Your task to perform on an android device: toggle priority inbox in the gmail app Image 0: 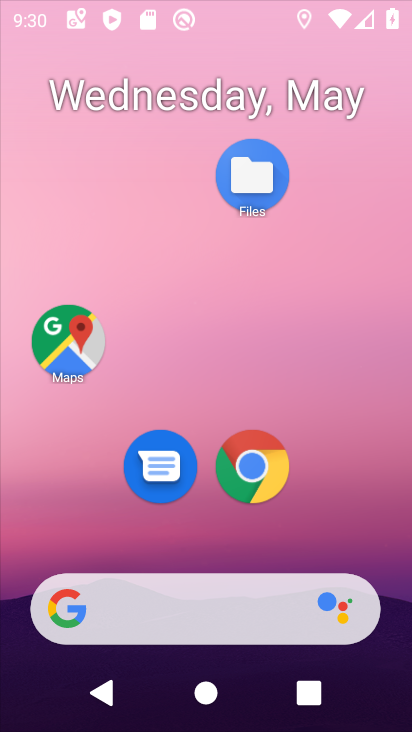
Step 0: drag from (281, 645) to (142, 247)
Your task to perform on an android device: toggle priority inbox in the gmail app Image 1: 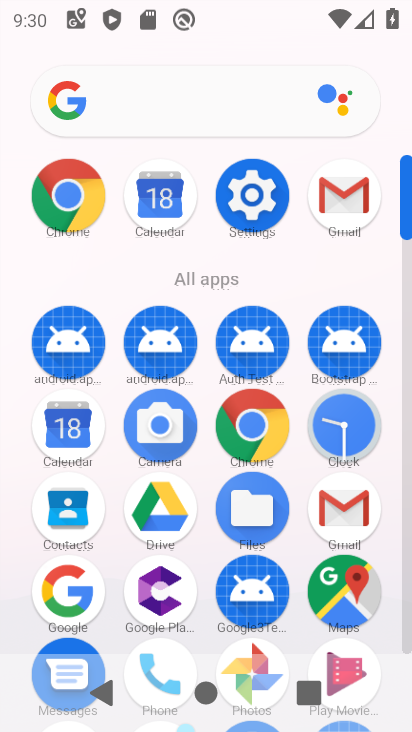
Step 1: click (341, 502)
Your task to perform on an android device: toggle priority inbox in the gmail app Image 2: 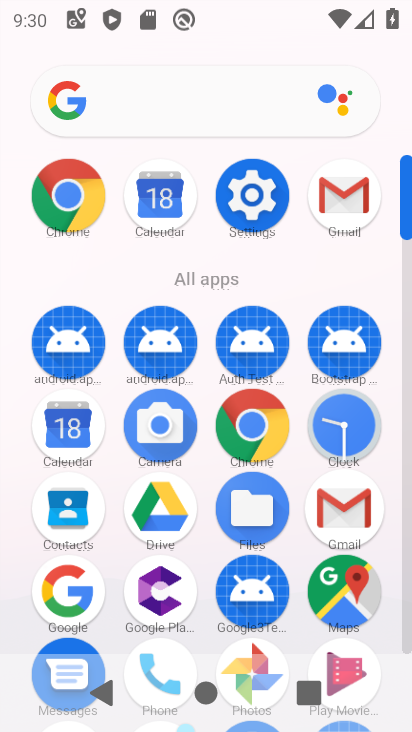
Step 2: click (341, 502)
Your task to perform on an android device: toggle priority inbox in the gmail app Image 3: 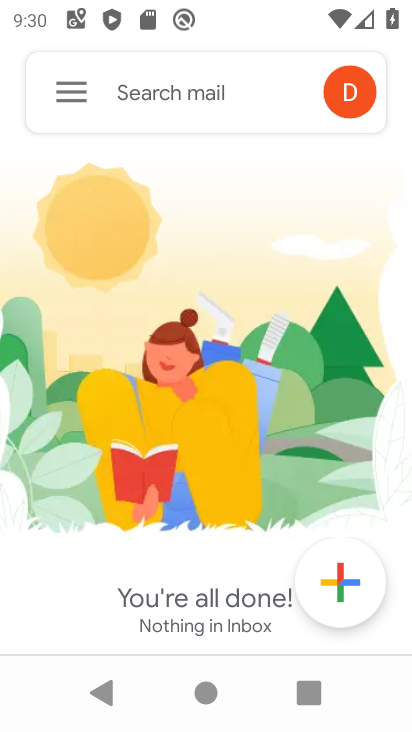
Step 3: click (68, 91)
Your task to perform on an android device: toggle priority inbox in the gmail app Image 4: 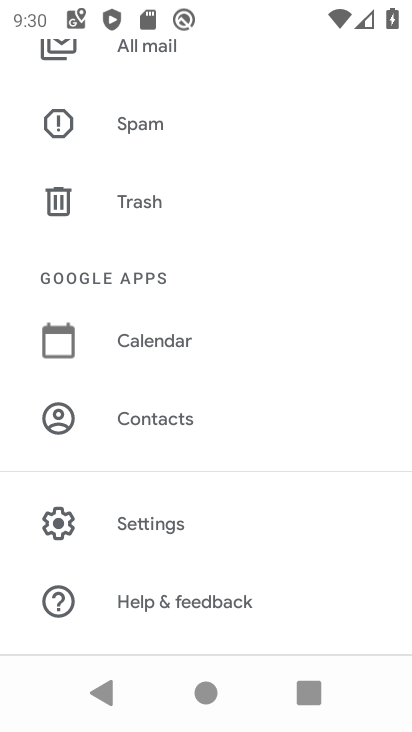
Step 4: click (153, 524)
Your task to perform on an android device: toggle priority inbox in the gmail app Image 5: 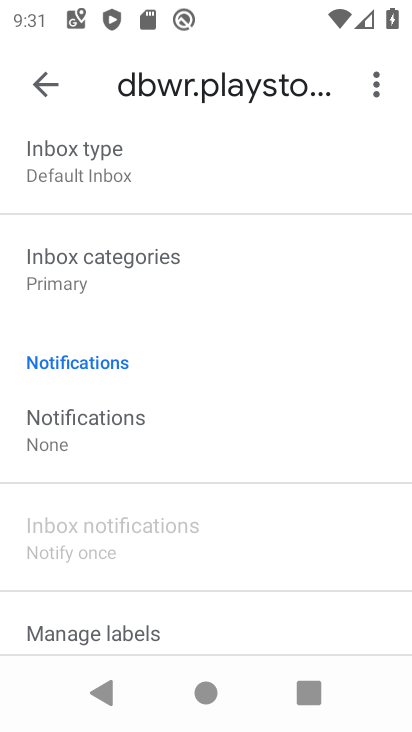
Step 5: click (66, 155)
Your task to perform on an android device: toggle priority inbox in the gmail app Image 6: 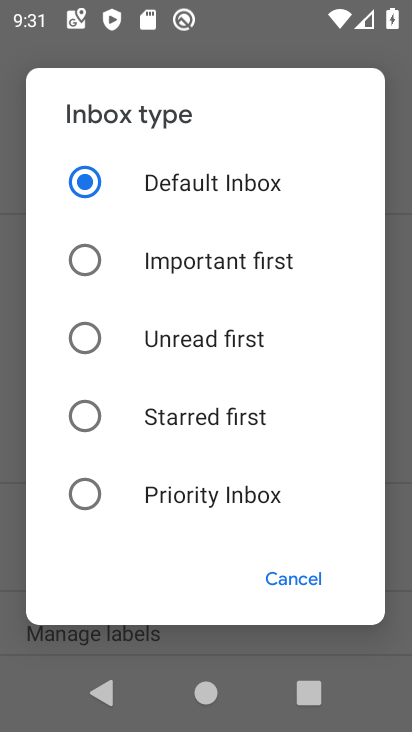
Step 6: click (80, 491)
Your task to perform on an android device: toggle priority inbox in the gmail app Image 7: 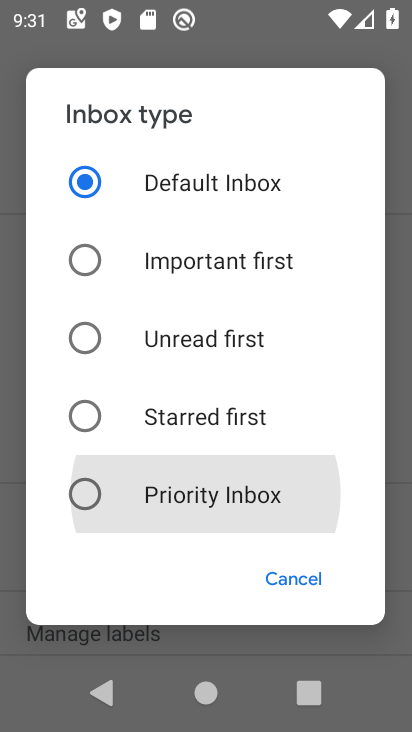
Step 7: click (82, 493)
Your task to perform on an android device: toggle priority inbox in the gmail app Image 8: 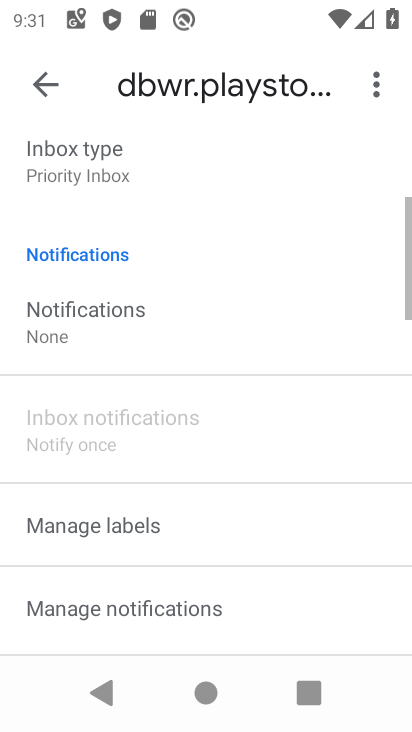
Step 8: click (84, 495)
Your task to perform on an android device: toggle priority inbox in the gmail app Image 9: 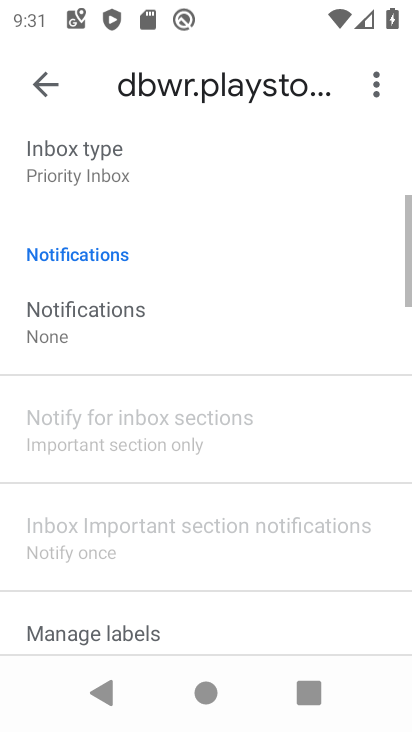
Step 9: click (84, 493)
Your task to perform on an android device: toggle priority inbox in the gmail app Image 10: 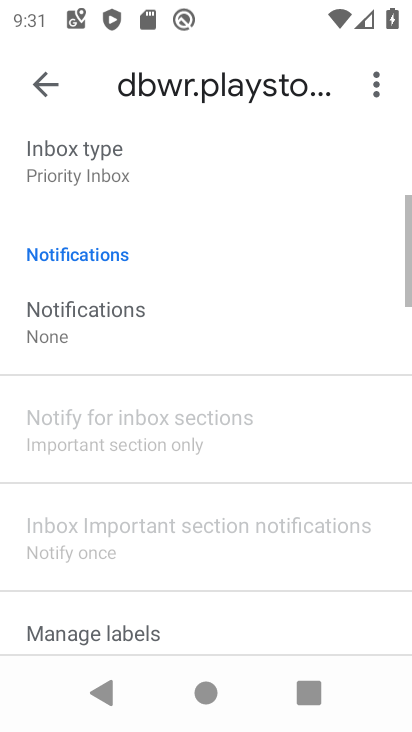
Step 10: task complete